Your task to perform on an android device: set an alarm Image 0: 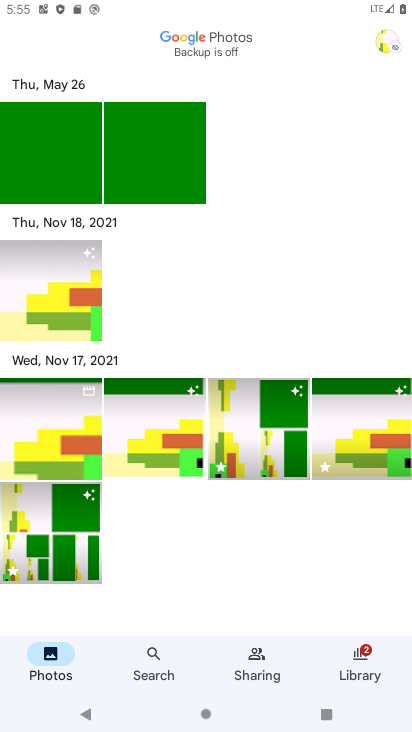
Step 0: press home button
Your task to perform on an android device: set an alarm Image 1: 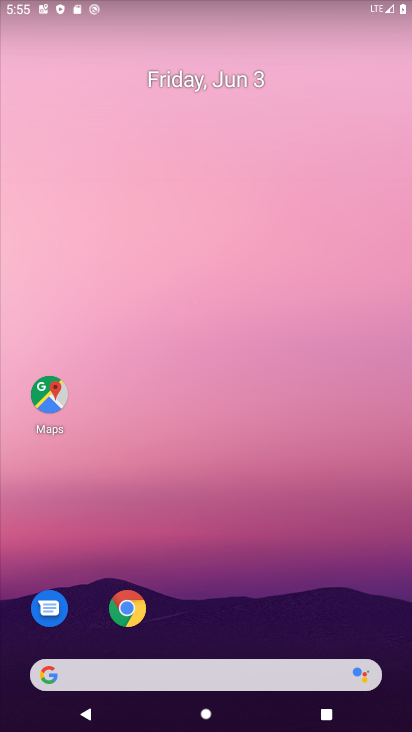
Step 1: drag from (292, 590) to (323, 235)
Your task to perform on an android device: set an alarm Image 2: 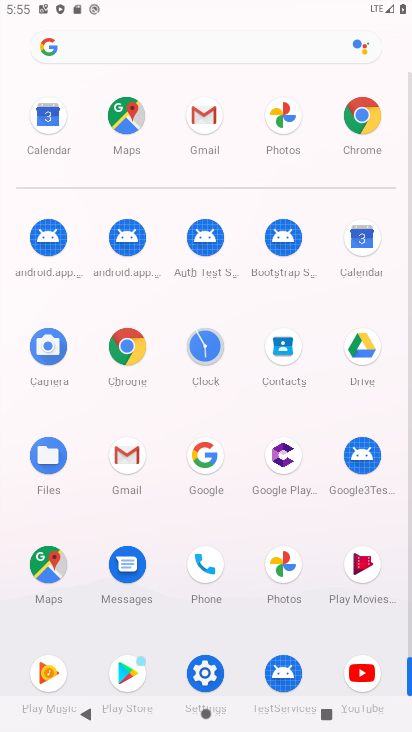
Step 2: click (203, 354)
Your task to perform on an android device: set an alarm Image 3: 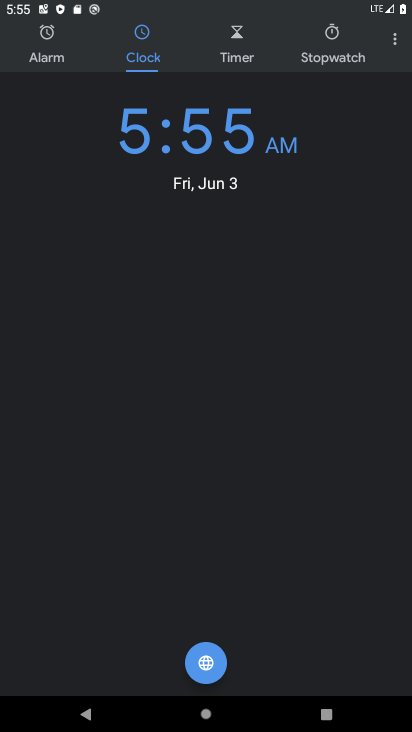
Step 3: click (40, 36)
Your task to perform on an android device: set an alarm Image 4: 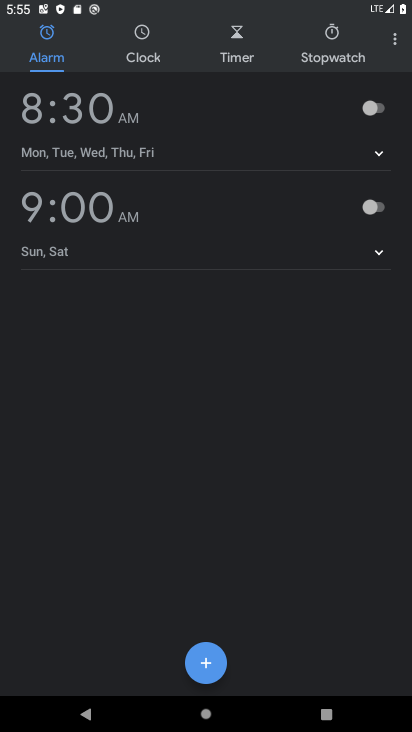
Step 4: click (377, 105)
Your task to perform on an android device: set an alarm Image 5: 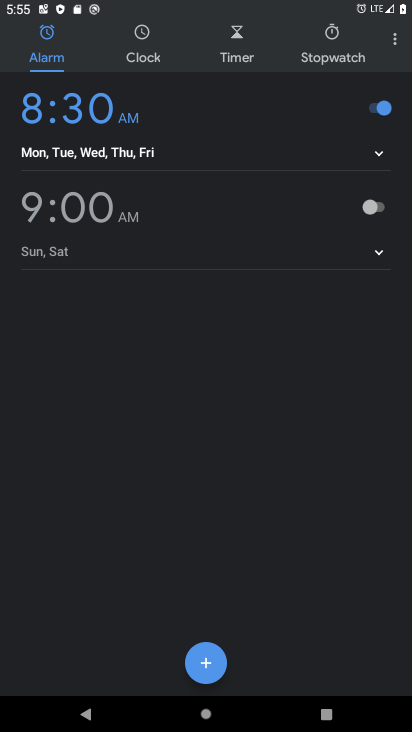
Step 5: task complete